Your task to perform on an android device: Show me popular videos on Youtube Image 0: 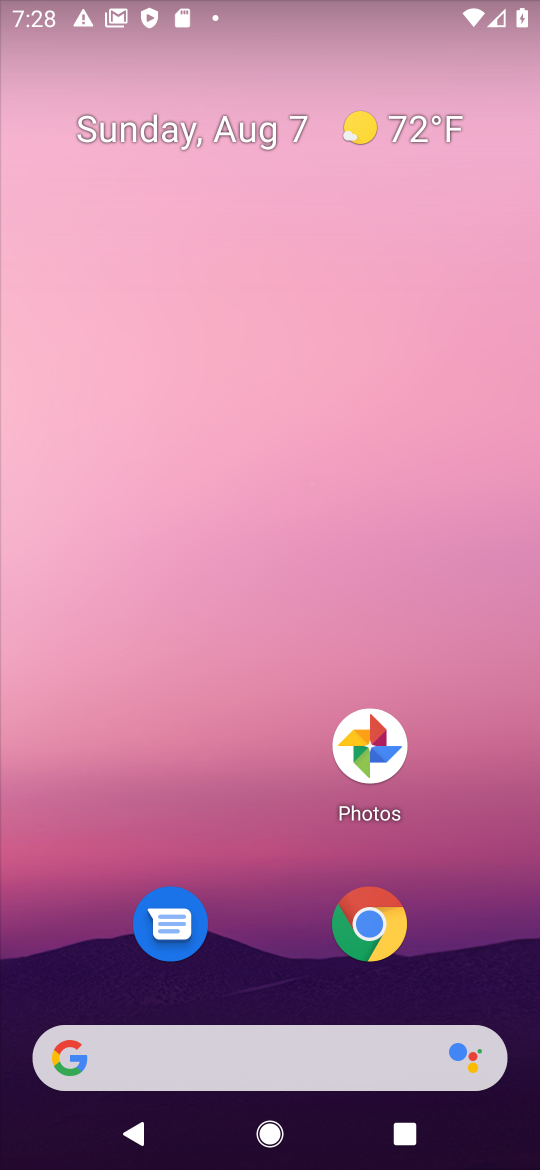
Step 0: drag from (349, 1073) to (323, 147)
Your task to perform on an android device: Show me popular videos on Youtube Image 1: 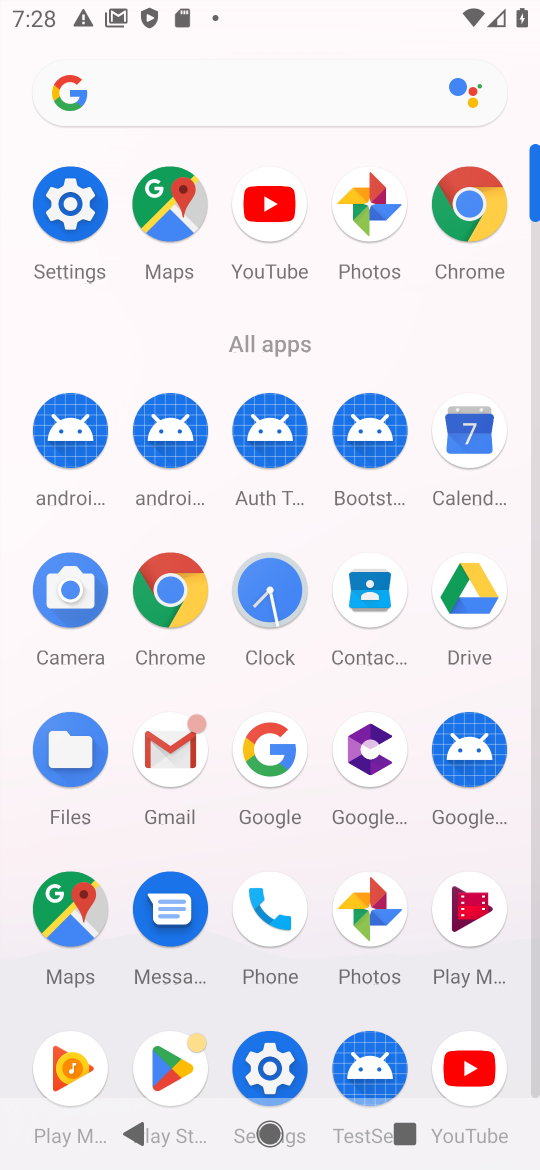
Step 1: click (466, 1068)
Your task to perform on an android device: Show me popular videos on Youtube Image 2: 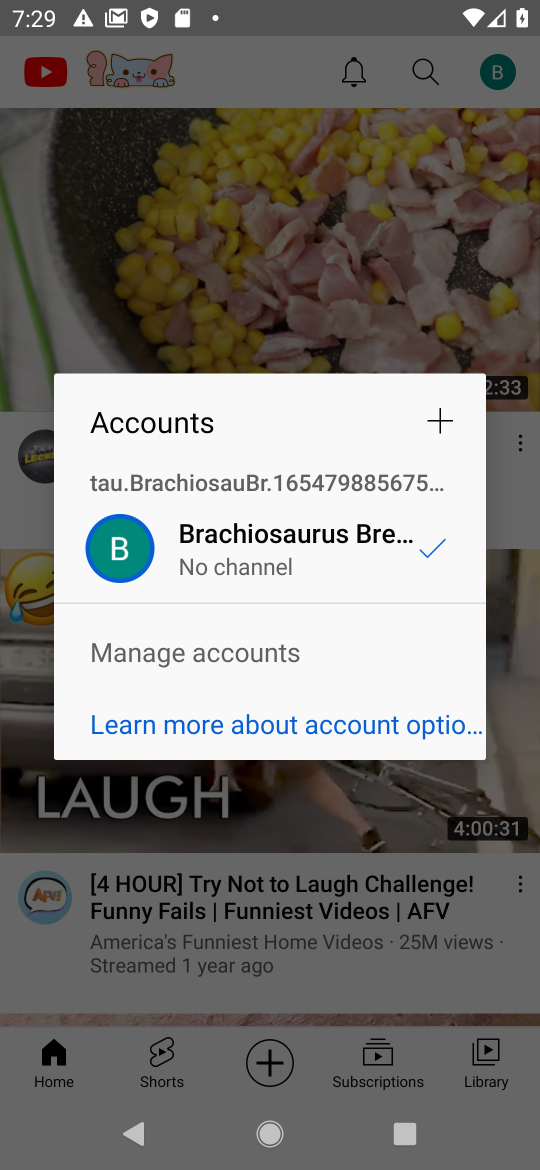
Step 2: click (371, 829)
Your task to perform on an android device: Show me popular videos on Youtube Image 3: 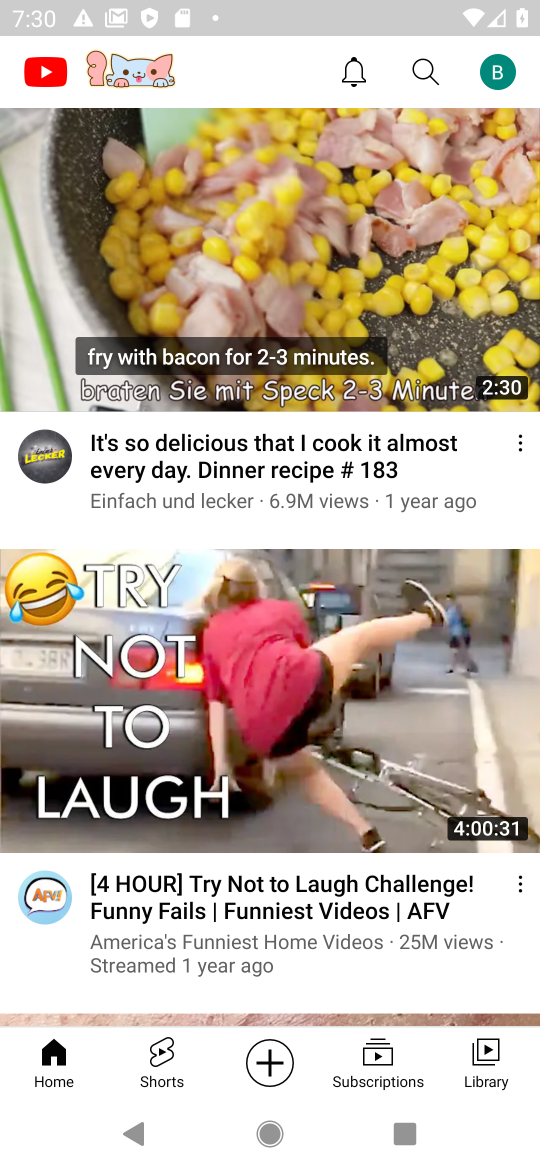
Step 3: click (492, 1064)
Your task to perform on an android device: Show me popular videos on Youtube Image 4: 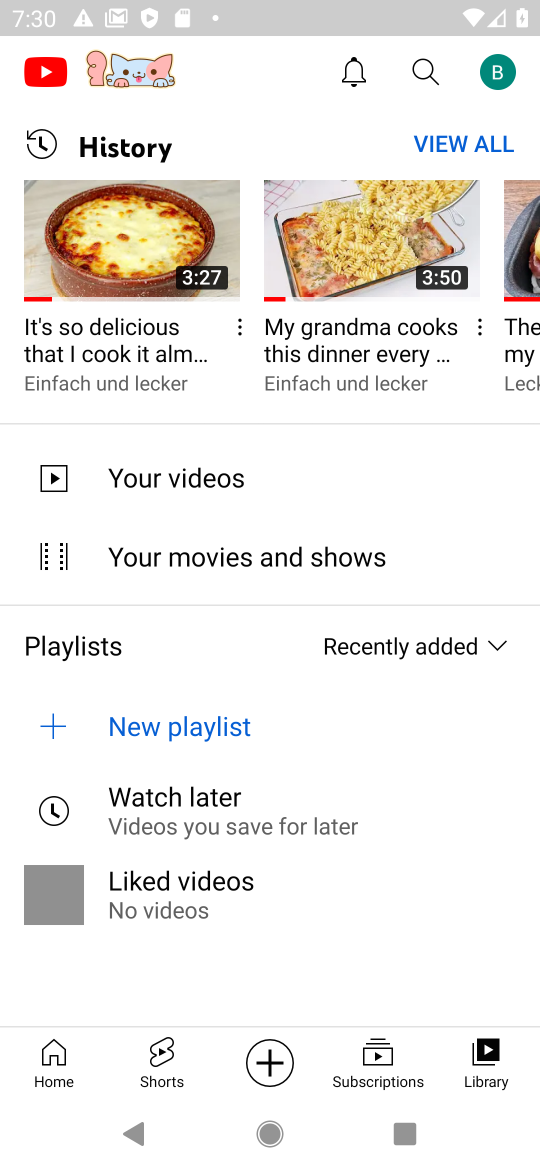
Step 4: click (143, 274)
Your task to perform on an android device: Show me popular videos on Youtube Image 5: 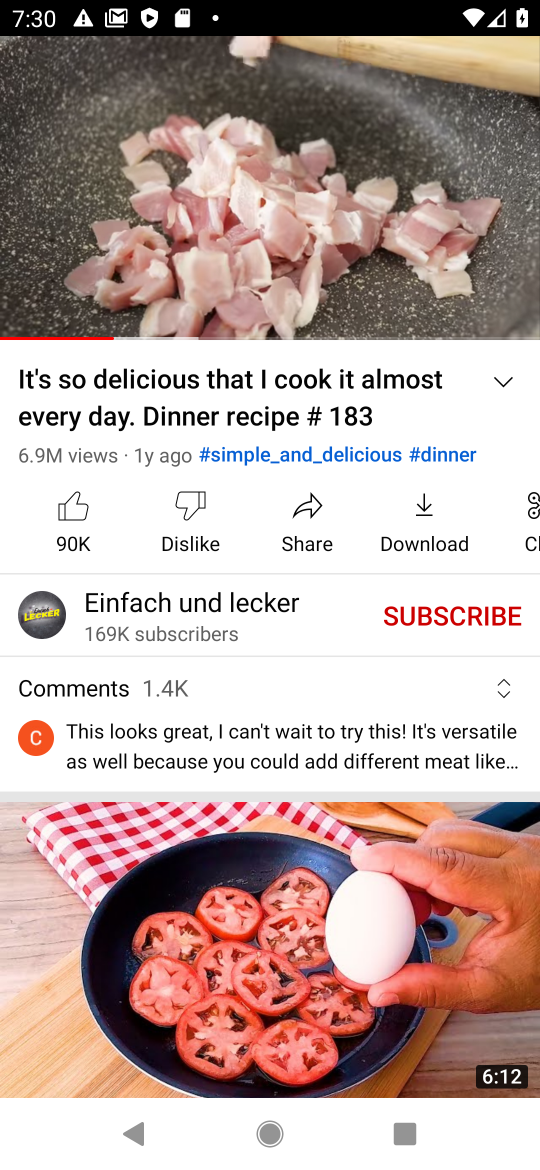
Step 5: task complete